Your task to perform on an android device: Add jbl charge 4 to the cart on amazon Image 0: 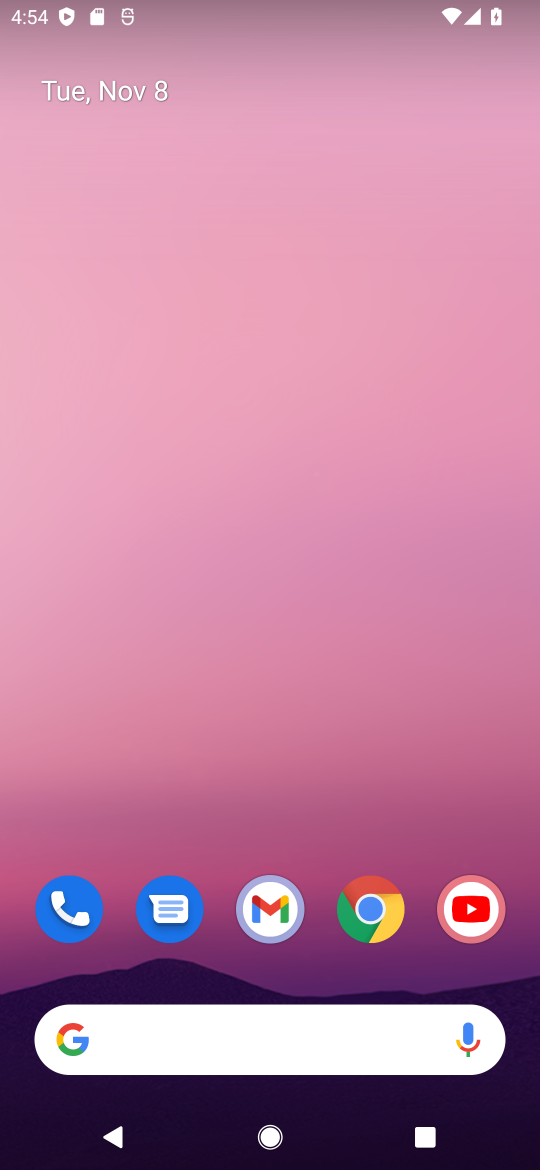
Step 0: click (366, 909)
Your task to perform on an android device: Add jbl charge 4 to the cart on amazon Image 1: 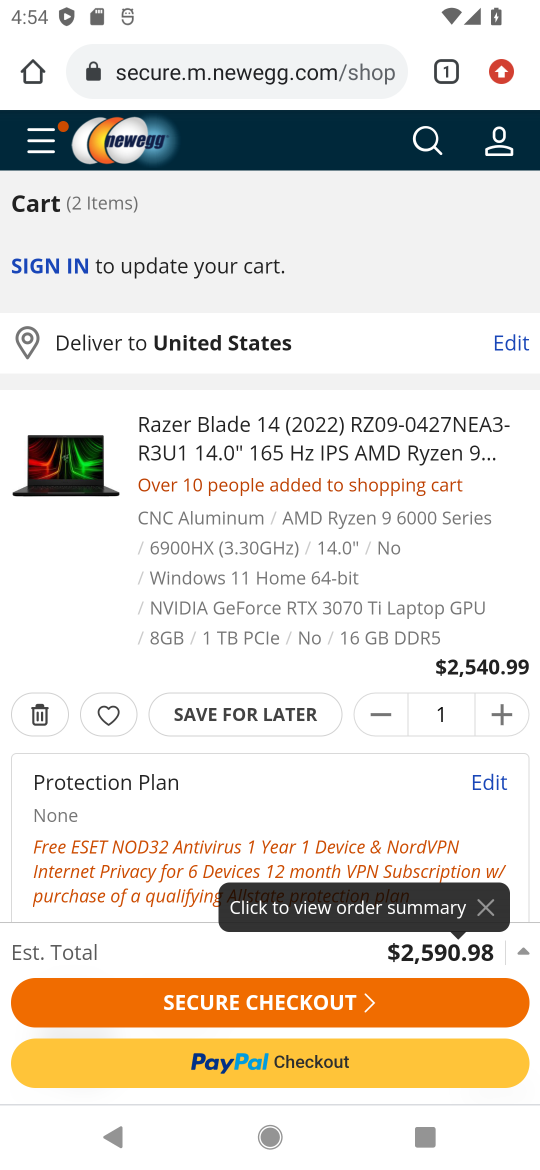
Step 1: click (299, 67)
Your task to perform on an android device: Add jbl charge 4 to the cart on amazon Image 2: 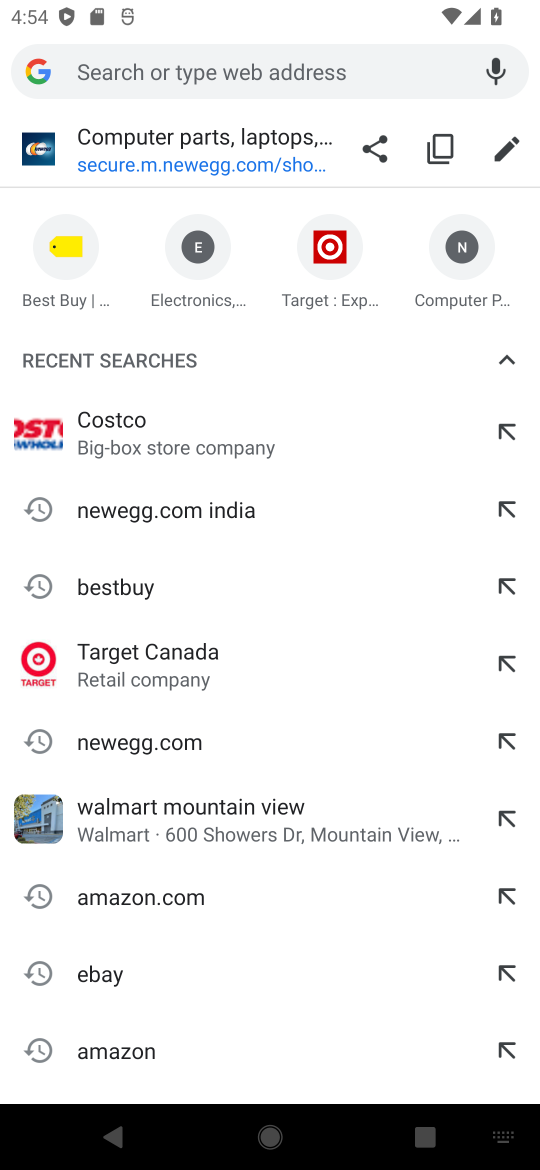
Step 2: drag from (483, 269) to (173, 221)
Your task to perform on an android device: Add jbl charge 4 to the cart on amazon Image 3: 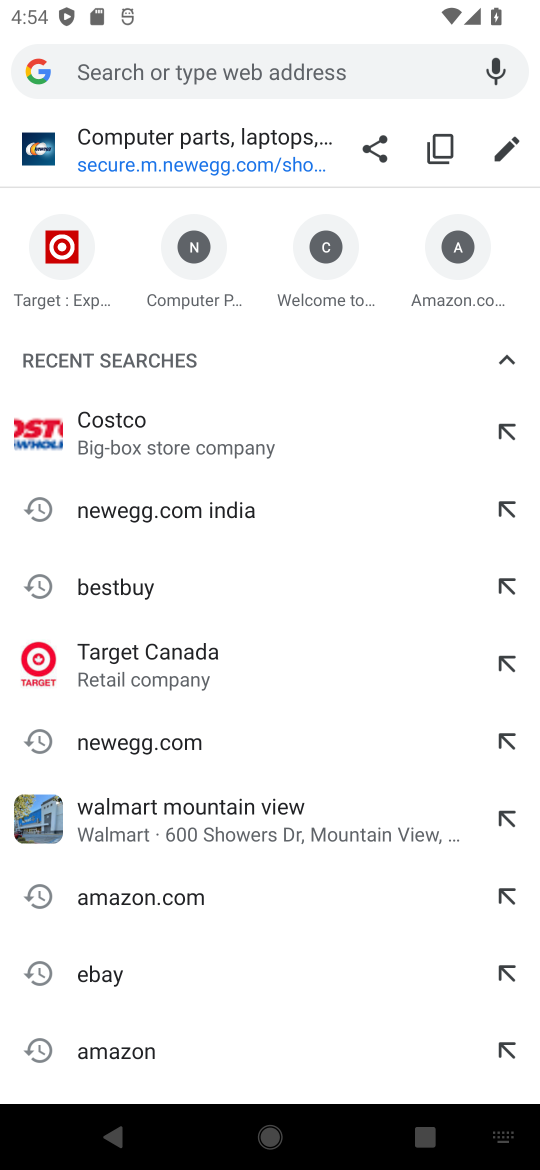
Step 3: click (463, 287)
Your task to perform on an android device: Add jbl charge 4 to the cart on amazon Image 4: 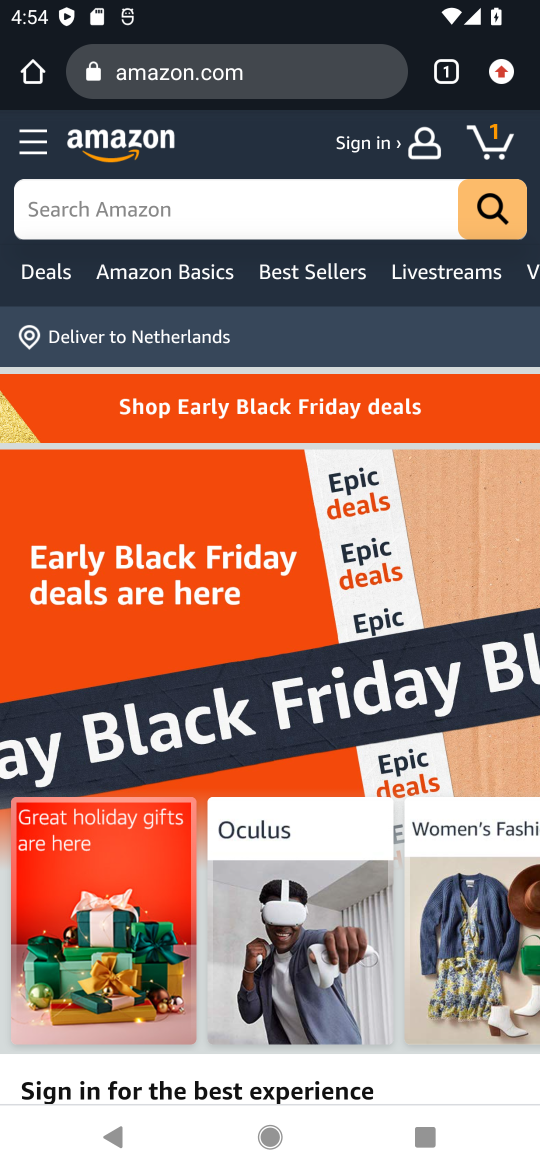
Step 4: click (100, 202)
Your task to perform on an android device: Add jbl charge 4 to the cart on amazon Image 5: 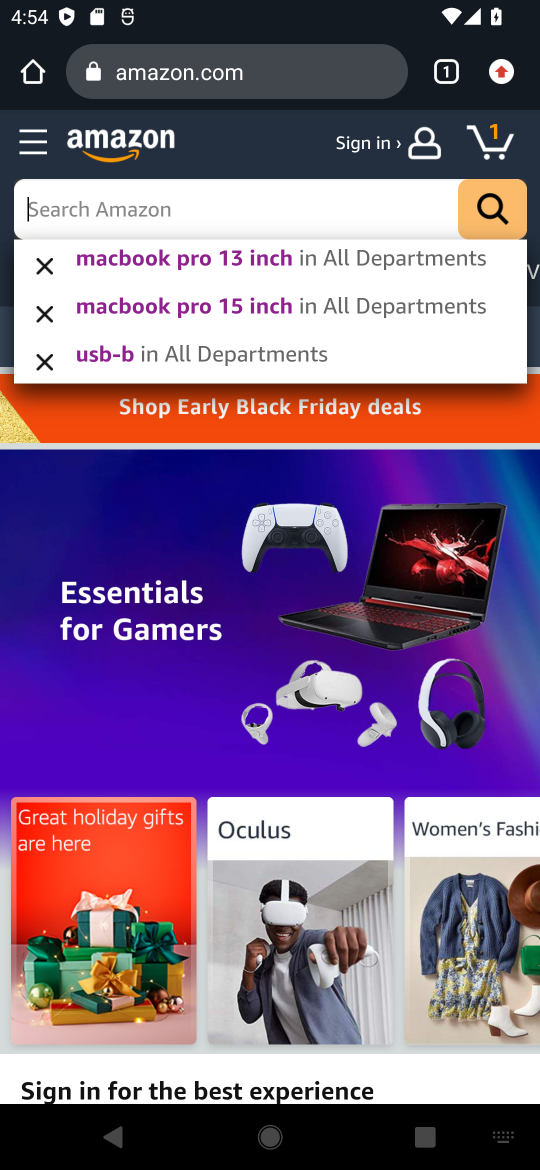
Step 5: type "jbl charge 4 "
Your task to perform on an android device: Add jbl charge 4 to the cart on amazon Image 6: 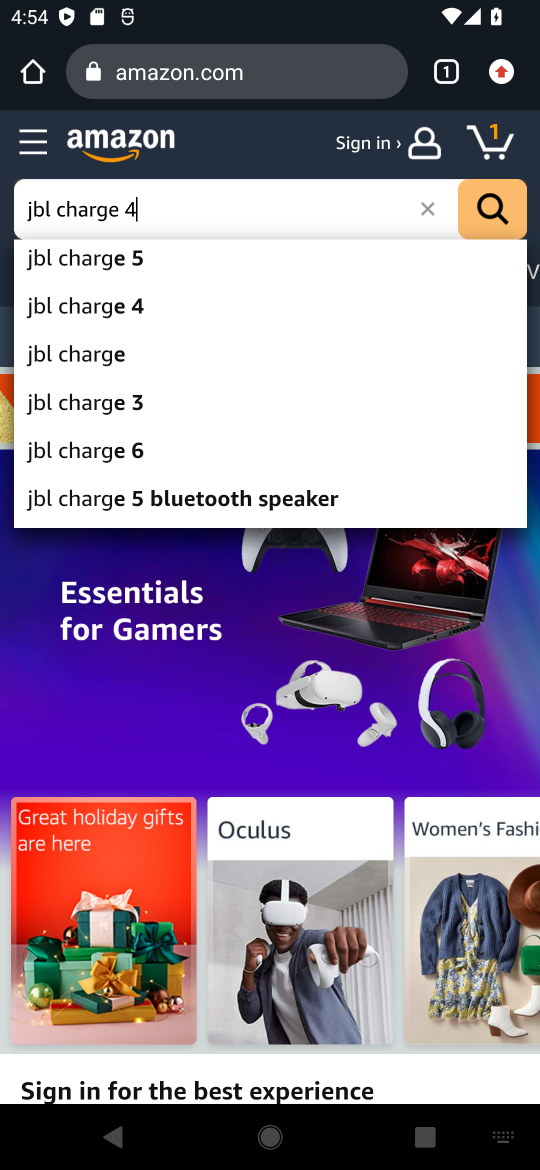
Step 6: press enter
Your task to perform on an android device: Add jbl charge 4 to the cart on amazon Image 7: 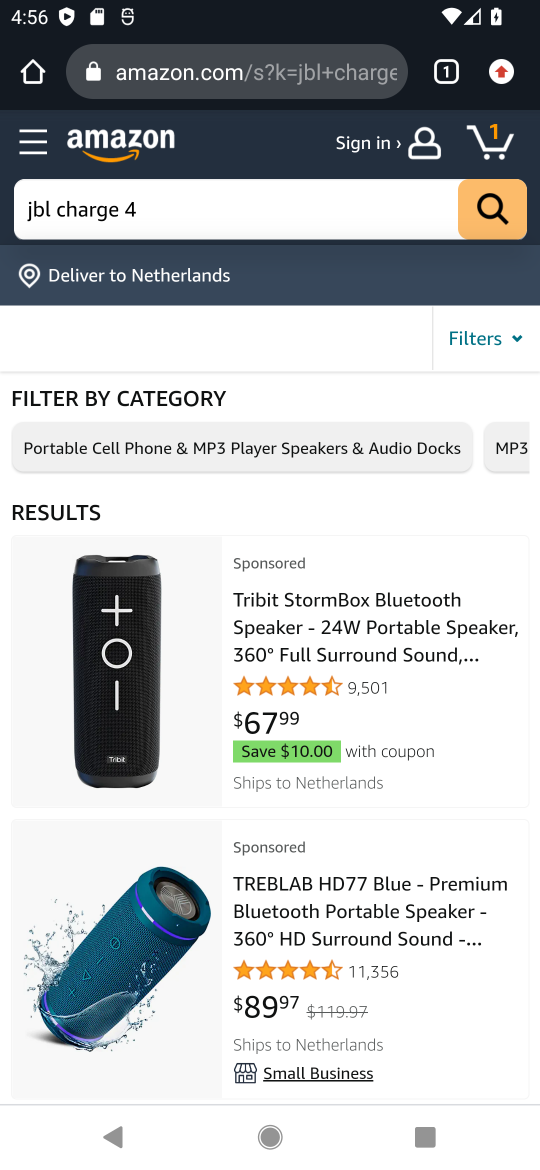
Step 7: task complete